Your task to perform on an android device: set the timer Image 0: 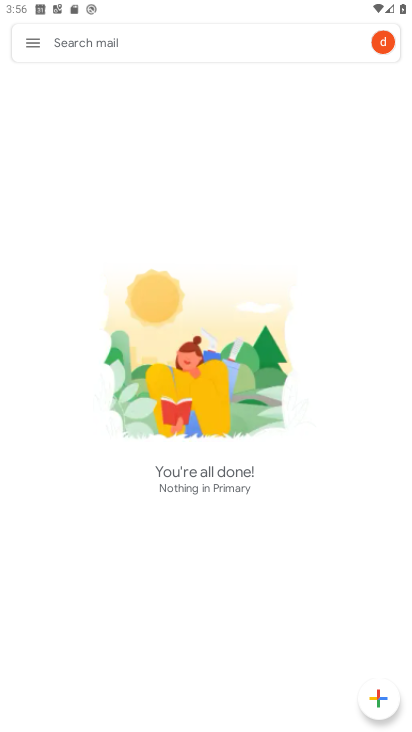
Step 0: press home button
Your task to perform on an android device: set the timer Image 1: 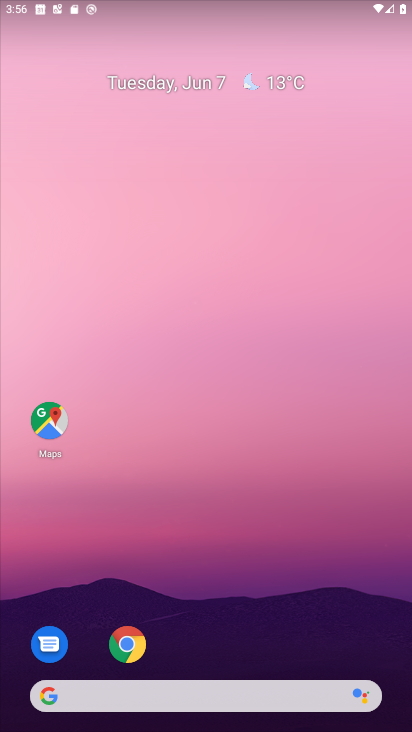
Step 1: drag from (338, 610) to (358, 147)
Your task to perform on an android device: set the timer Image 2: 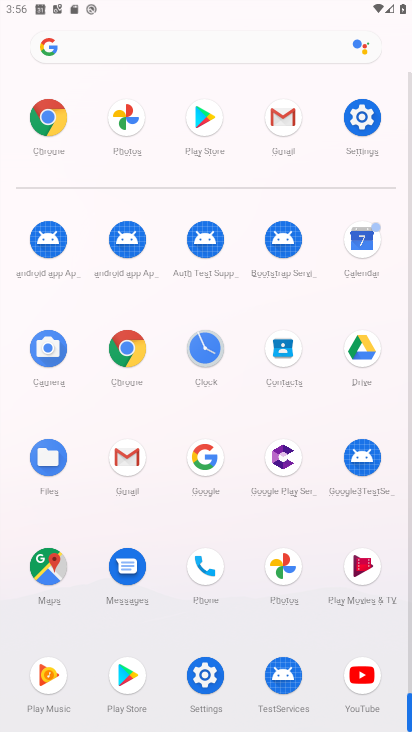
Step 2: click (209, 357)
Your task to perform on an android device: set the timer Image 3: 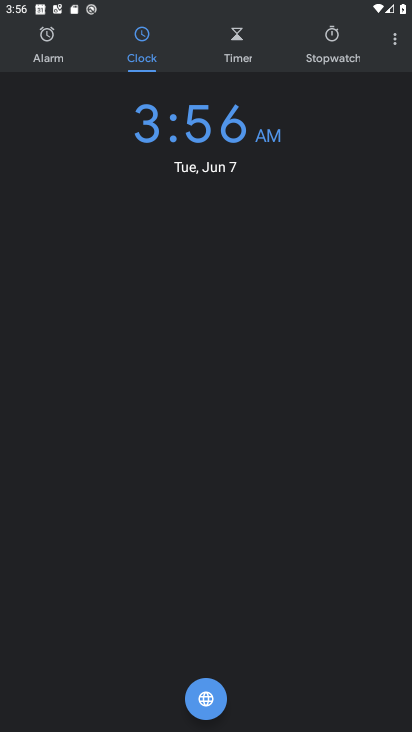
Step 3: click (232, 54)
Your task to perform on an android device: set the timer Image 4: 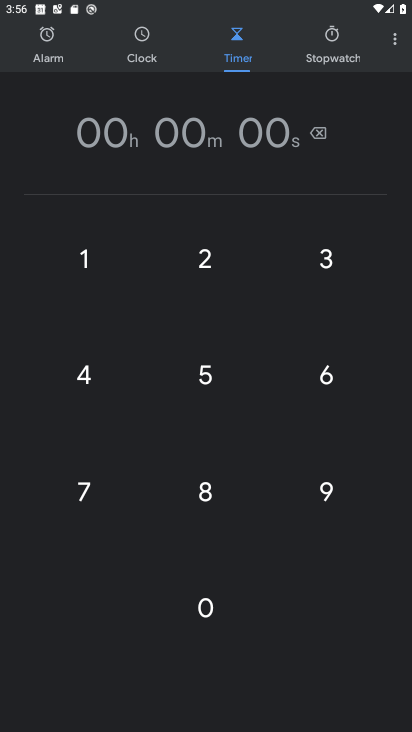
Step 4: click (211, 382)
Your task to perform on an android device: set the timer Image 5: 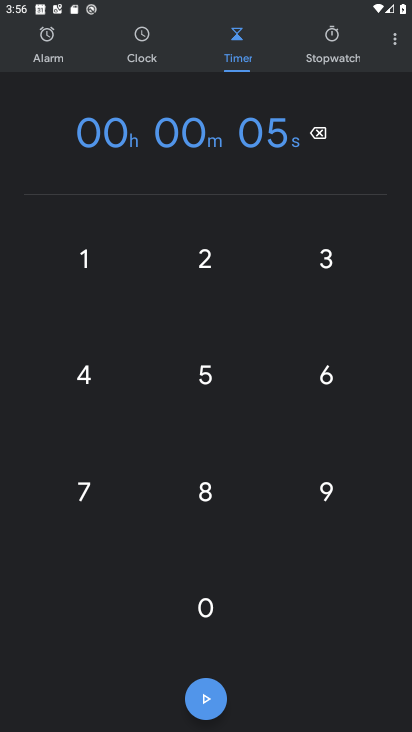
Step 5: task complete